Your task to perform on an android device: Go to wifi settings Image 0: 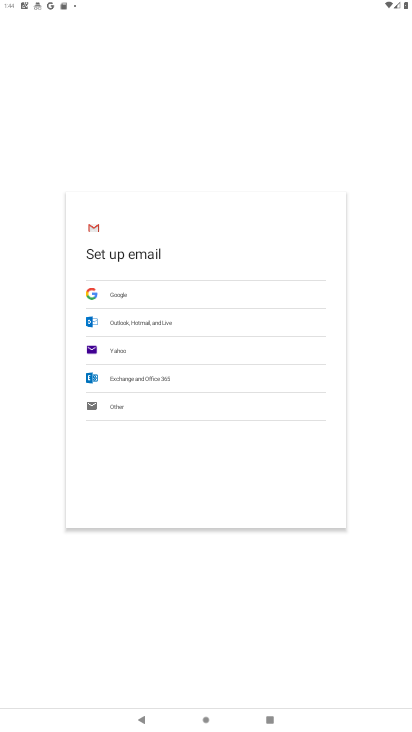
Step 0: press home button
Your task to perform on an android device: Go to wifi settings Image 1: 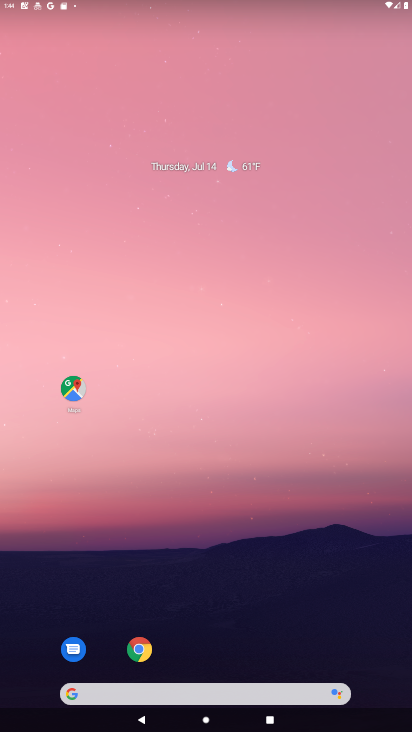
Step 1: drag from (297, 647) to (330, 116)
Your task to perform on an android device: Go to wifi settings Image 2: 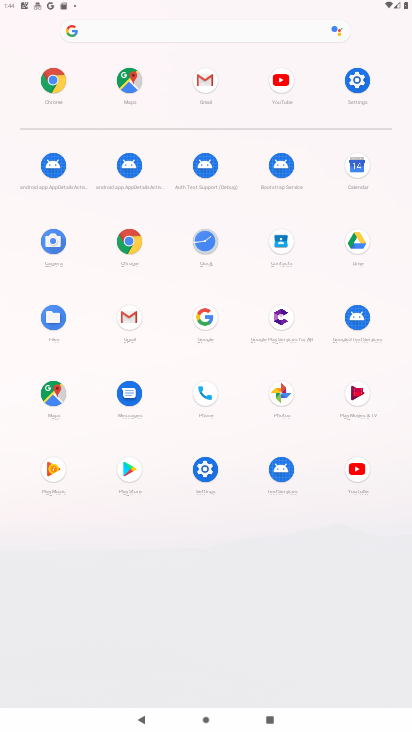
Step 2: click (355, 76)
Your task to perform on an android device: Go to wifi settings Image 3: 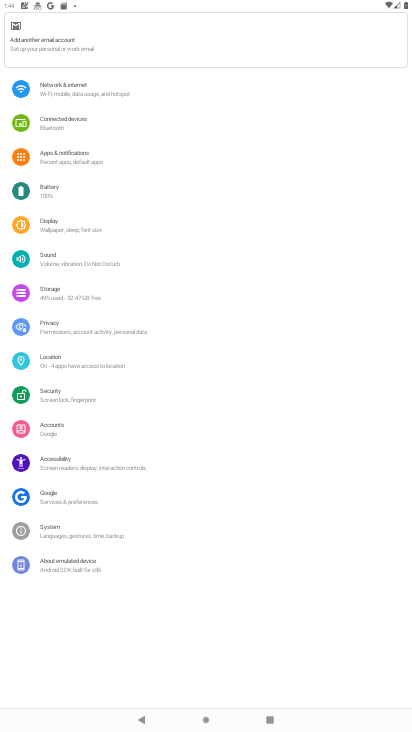
Step 3: drag from (119, 96) to (126, 569)
Your task to perform on an android device: Go to wifi settings Image 4: 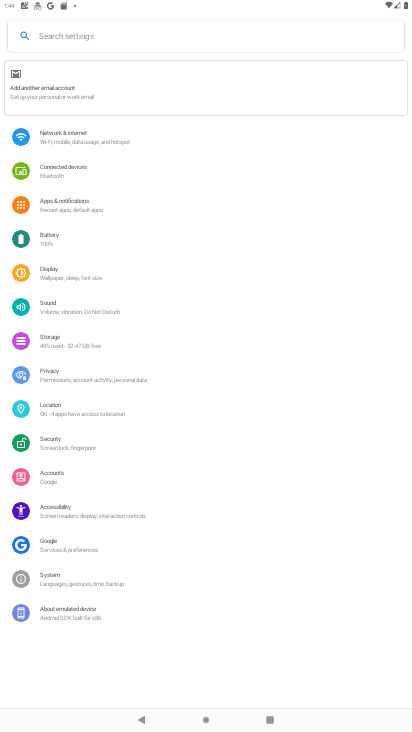
Step 4: click (165, 138)
Your task to perform on an android device: Go to wifi settings Image 5: 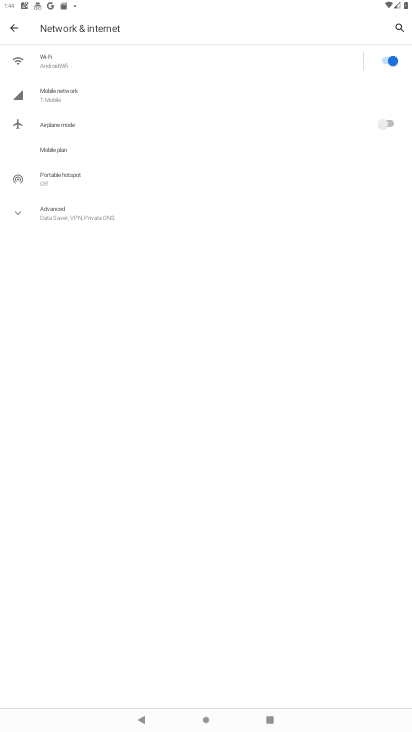
Step 5: click (108, 53)
Your task to perform on an android device: Go to wifi settings Image 6: 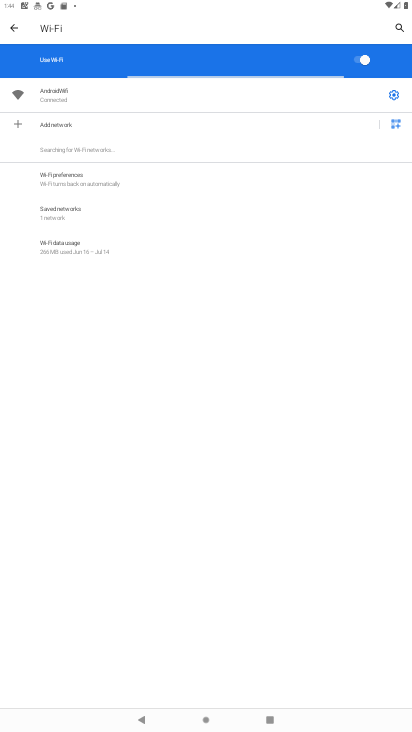
Step 6: task complete